Your task to perform on an android device: Go to notification settings Image 0: 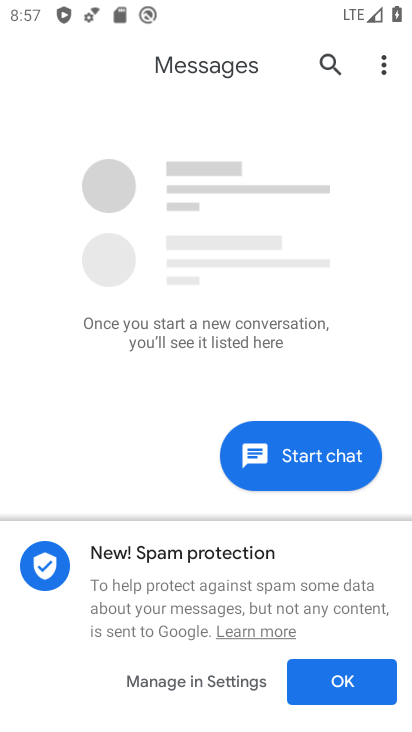
Step 0: press home button
Your task to perform on an android device: Go to notification settings Image 1: 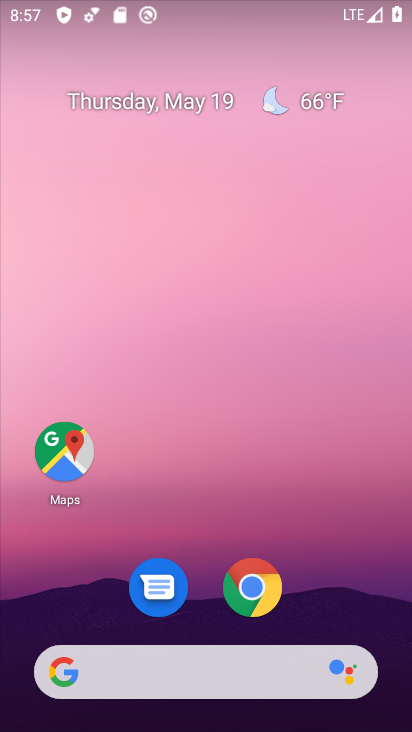
Step 1: drag from (264, 664) to (246, 214)
Your task to perform on an android device: Go to notification settings Image 2: 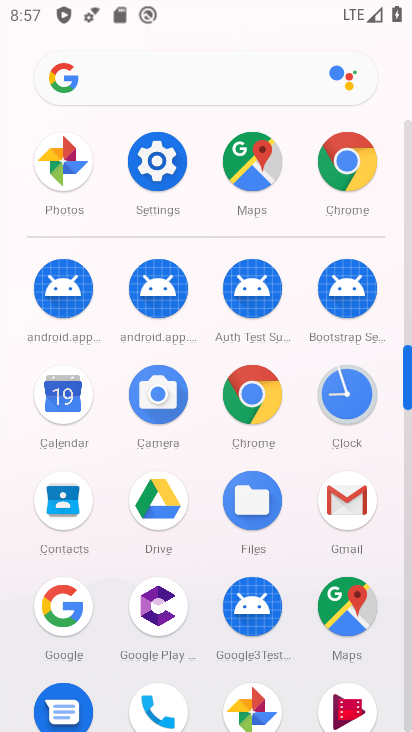
Step 2: click (138, 170)
Your task to perform on an android device: Go to notification settings Image 3: 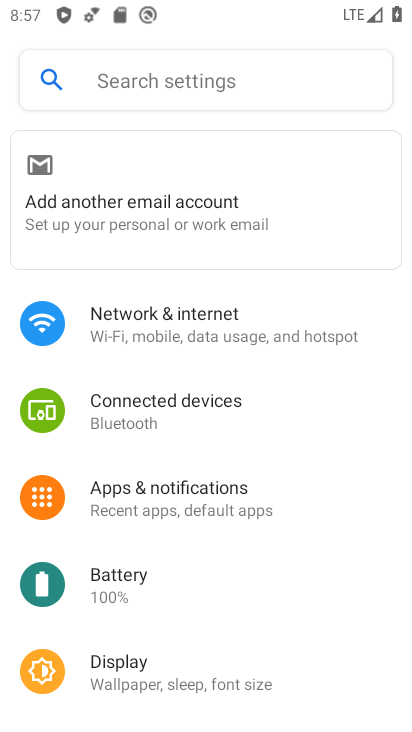
Step 3: click (154, 77)
Your task to perform on an android device: Go to notification settings Image 4: 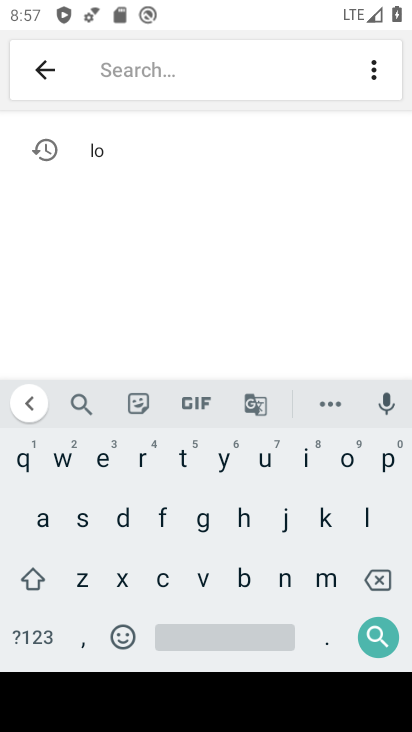
Step 4: click (290, 578)
Your task to perform on an android device: Go to notification settings Image 5: 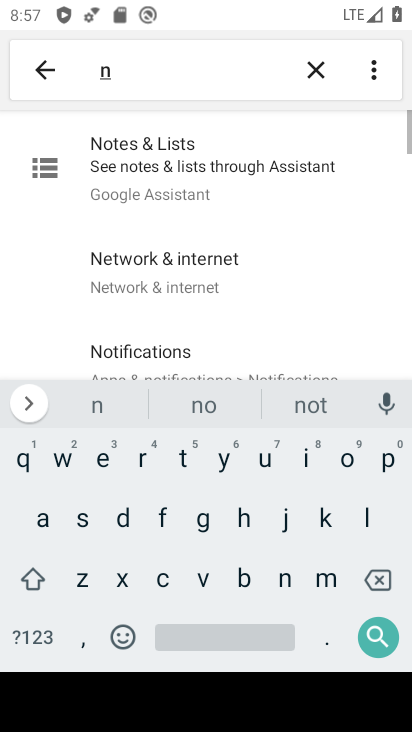
Step 5: click (345, 461)
Your task to perform on an android device: Go to notification settings Image 6: 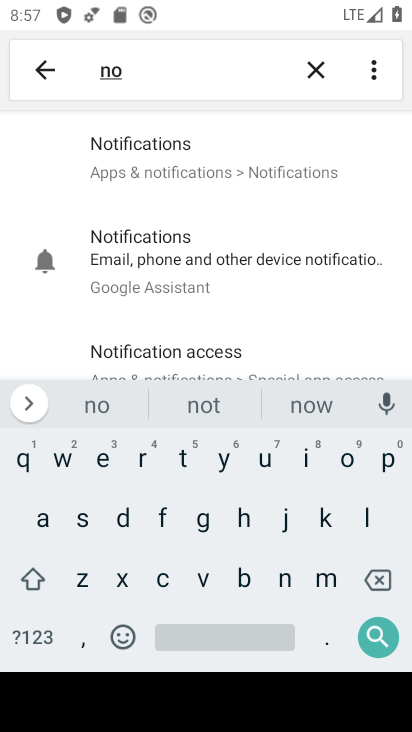
Step 6: click (147, 168)
Your task to perform on an android device: Go to notification settings Image 7: 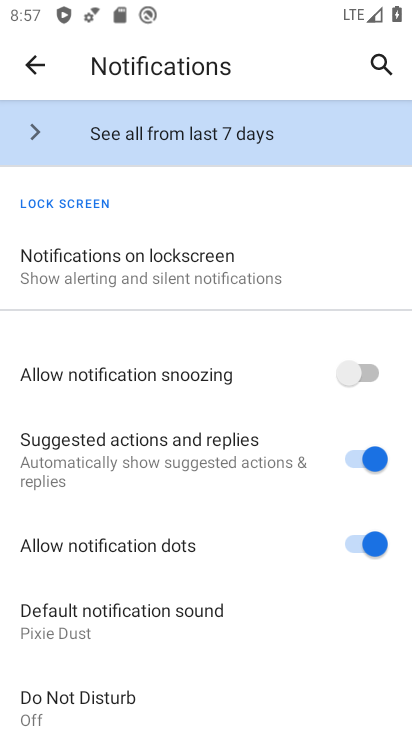
Step 7: click (111, 282)
Your task to perform on an android device: Go to notification settings Image 8: 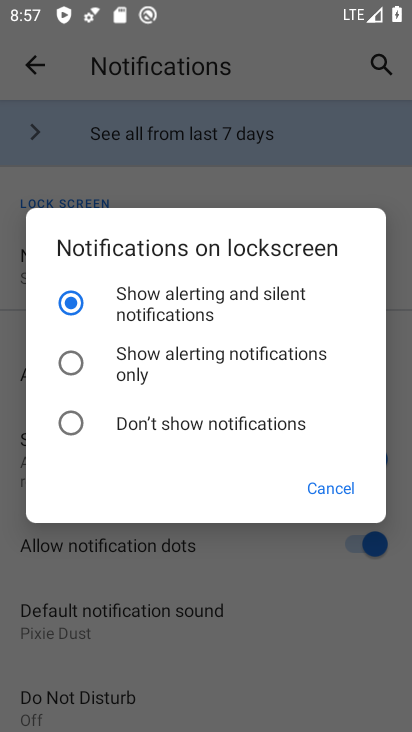
Step 8: task complete